Your task to perform on an android device: open app "Adobe Express: Graphic Design" Image 0: 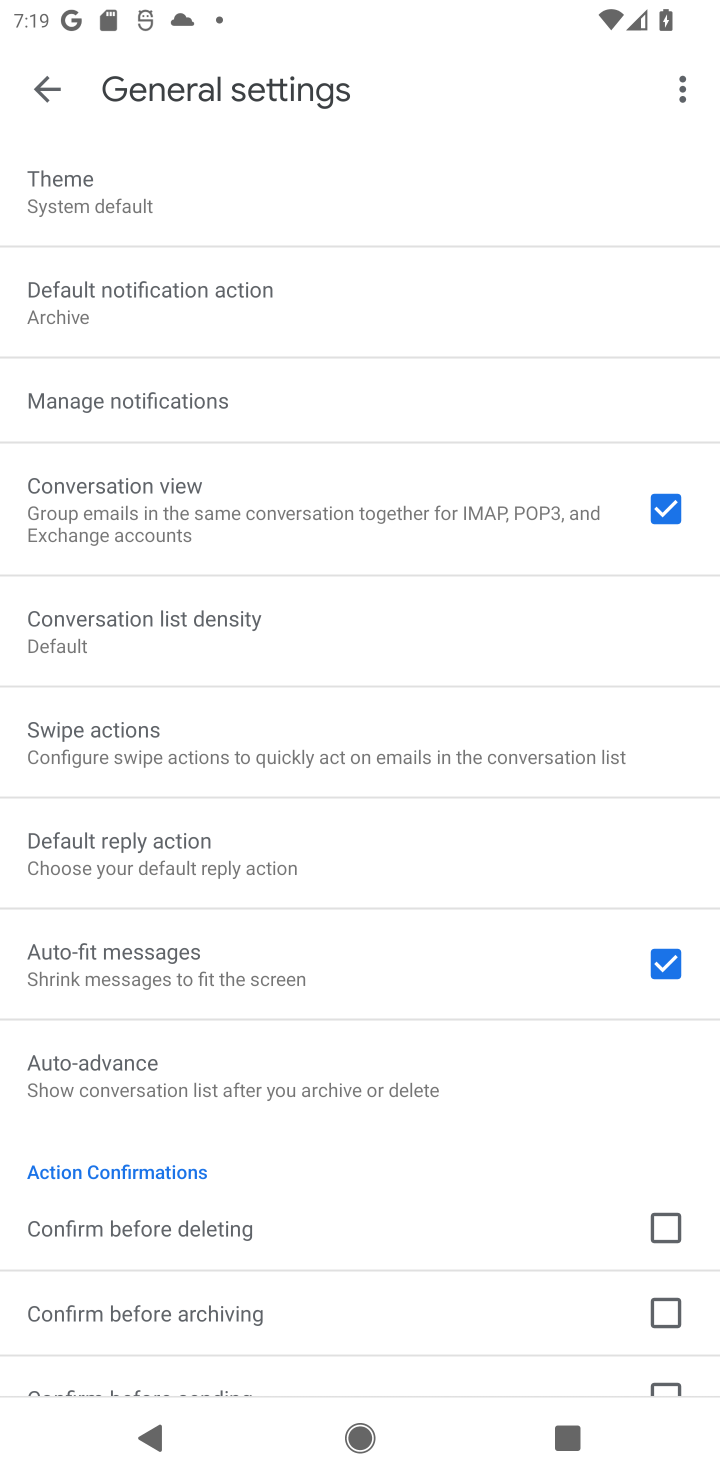
Step 0: press home button
Your task to perform on an android device: open app "Adobe Express: Graphic Design" Image 1: 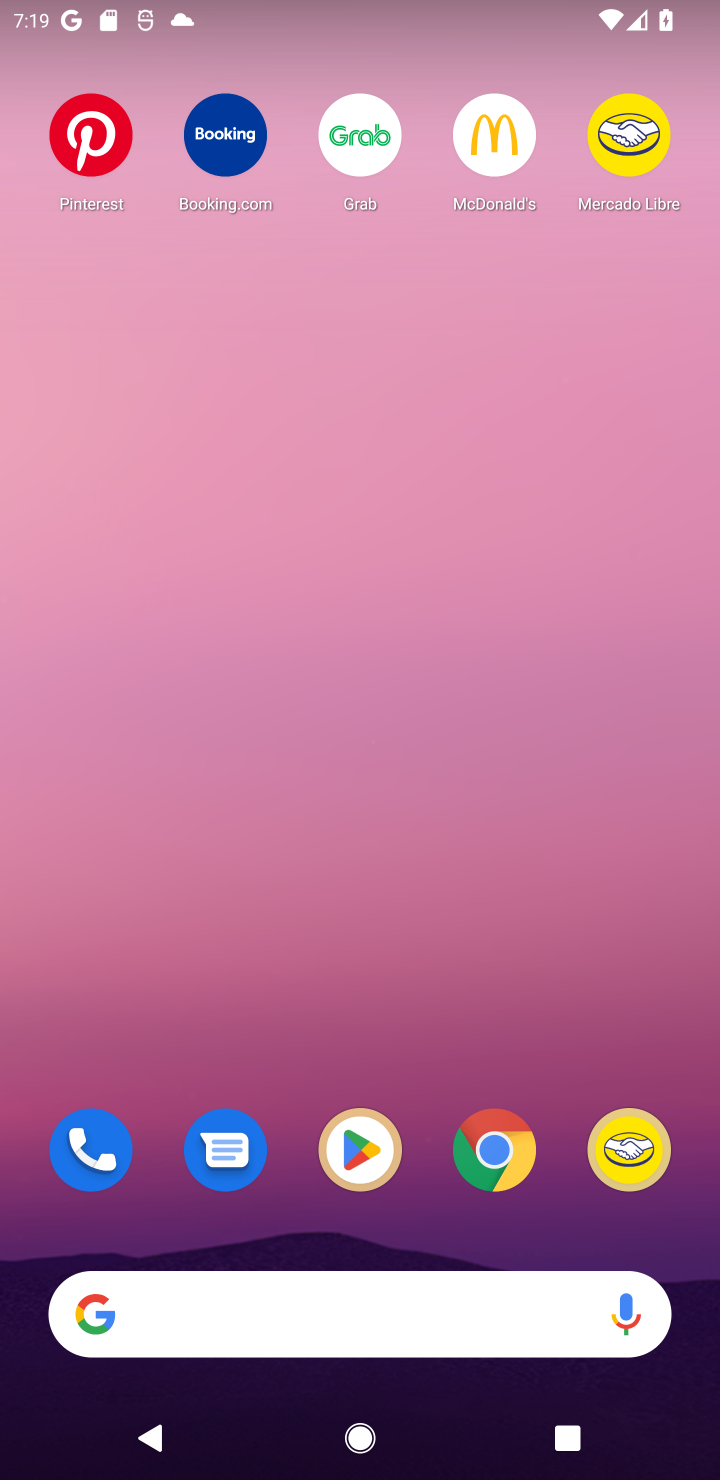
Step 1: click (369, 1154)
Your task to perform on an android device: open app "Adobe Express: Graphic Design" Image 2: 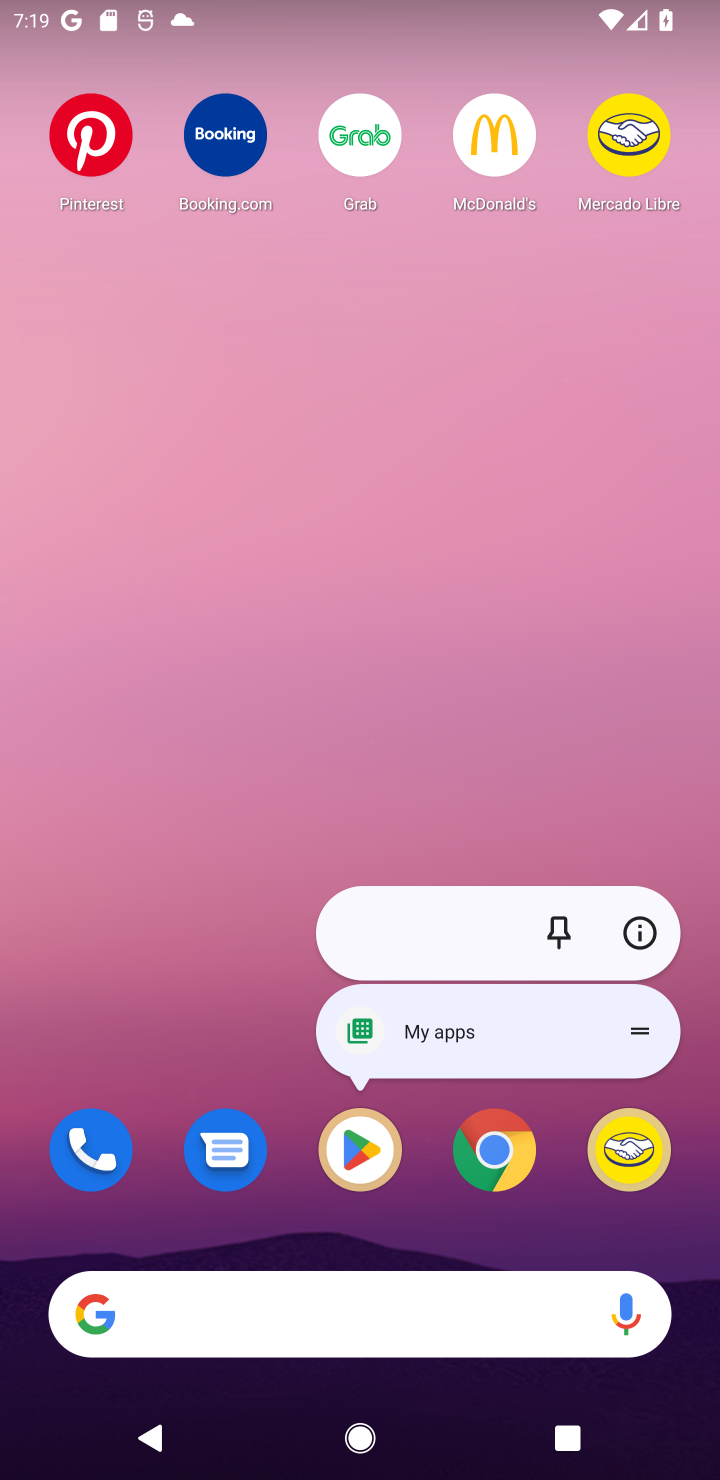
Step 2: click (371, 1154)
Your task to perform on an android device: open app "Adobe Express: Graphic Design" Image 3: 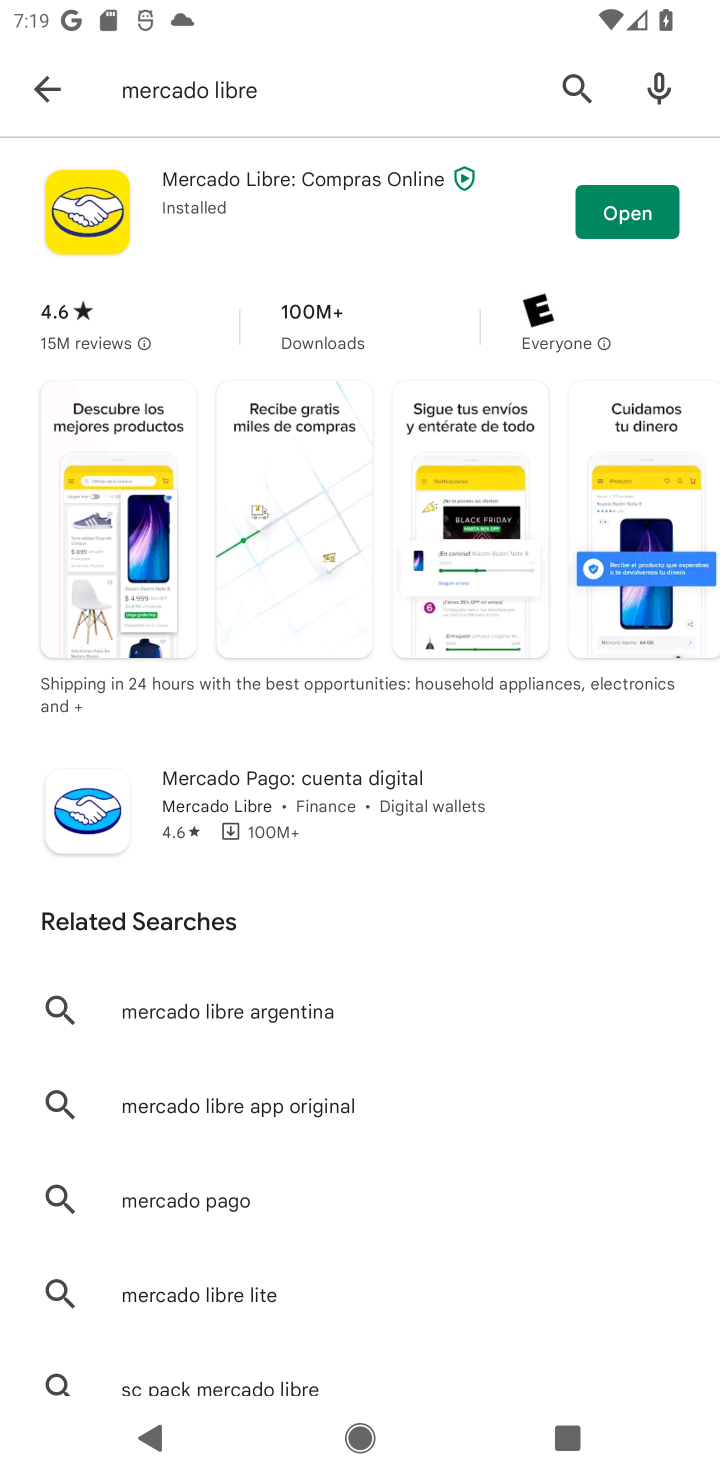
Step 3: click (76, 108)
Your task to perform on an android device: open app "Adobe Express: Graphic Design" Image 4: 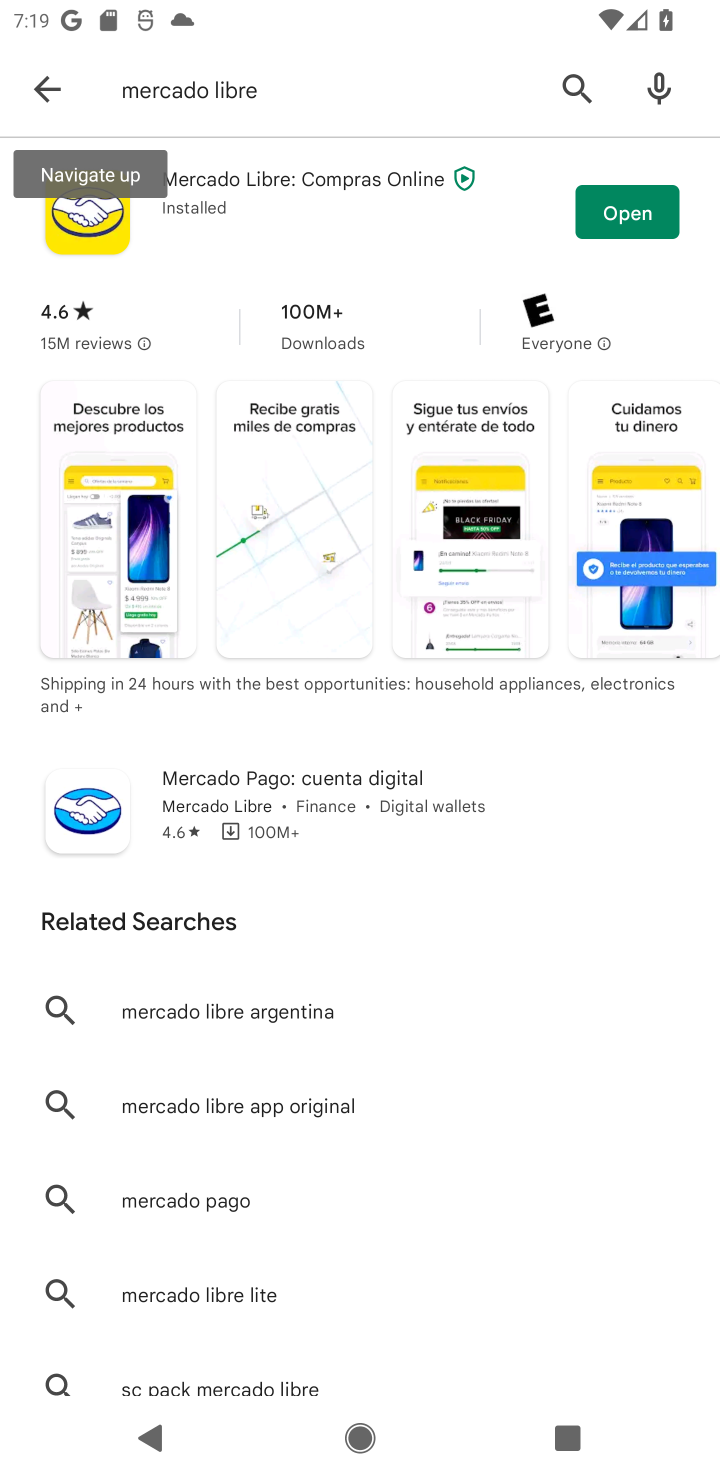
Step 4: click (71, 106)
Your task to perform on an android device: open app "Adobe Express: Graphic Design" Image 5: 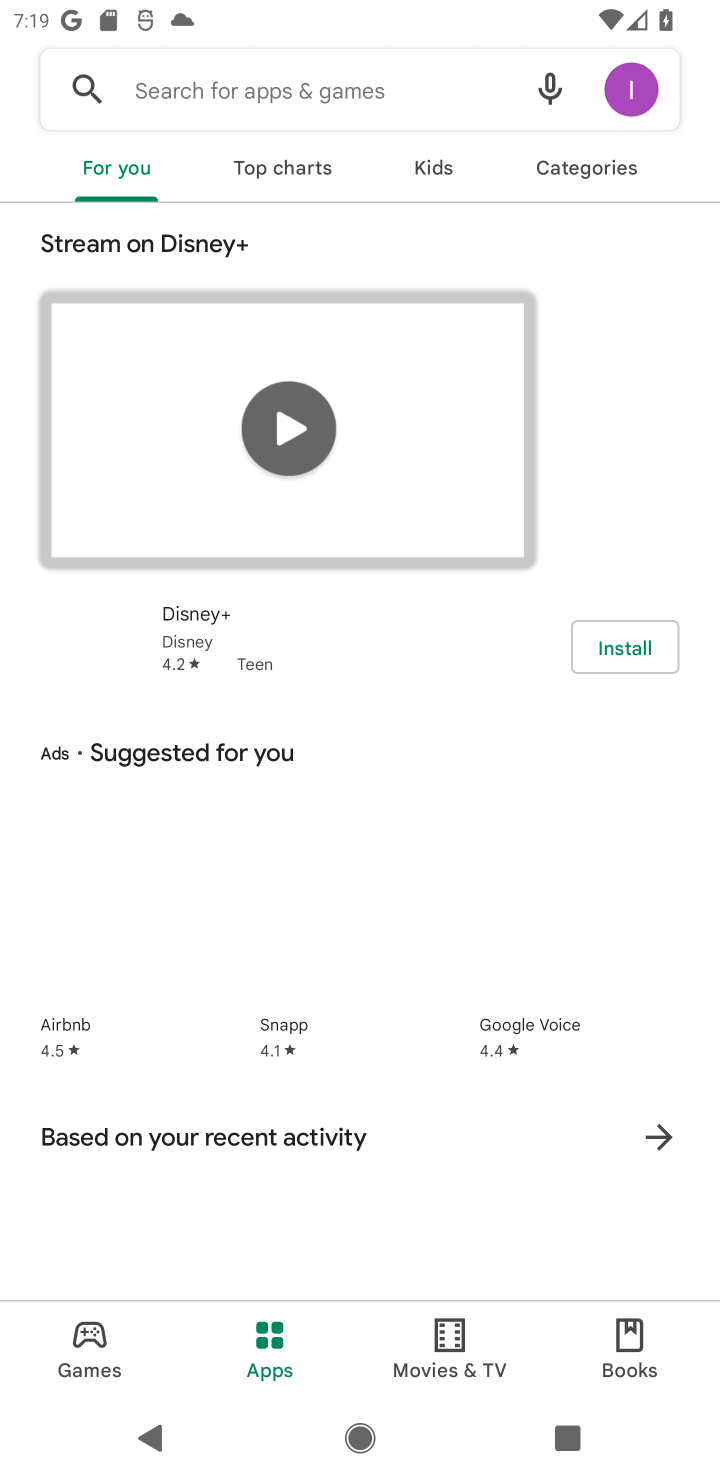
Step 5: click (69, 108)
Your task to perform on an android device: open app "Adobe Express: Graphic Design" Image 6: 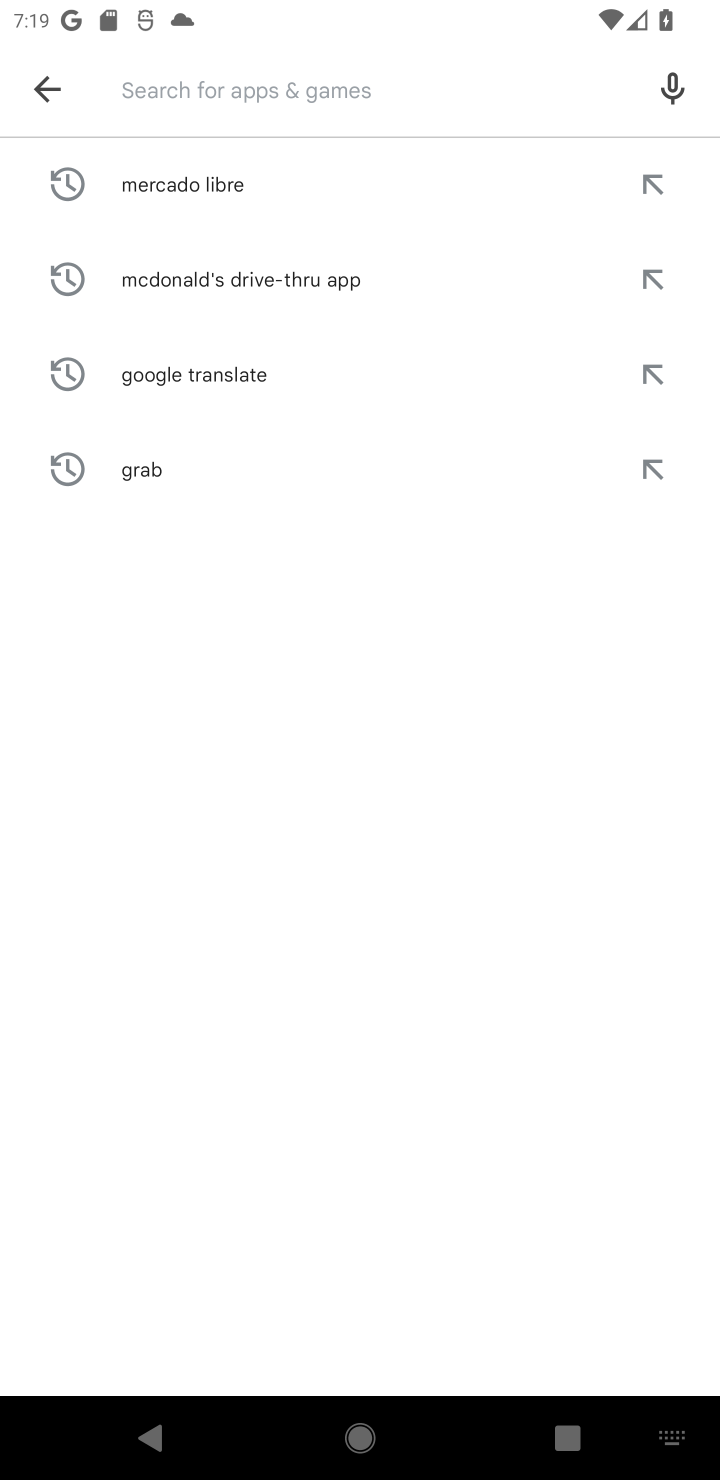
Step 6: click (114, 86)
Your task to perform on an android device: open app "Adobe Express: Graphic Design" Image 7: 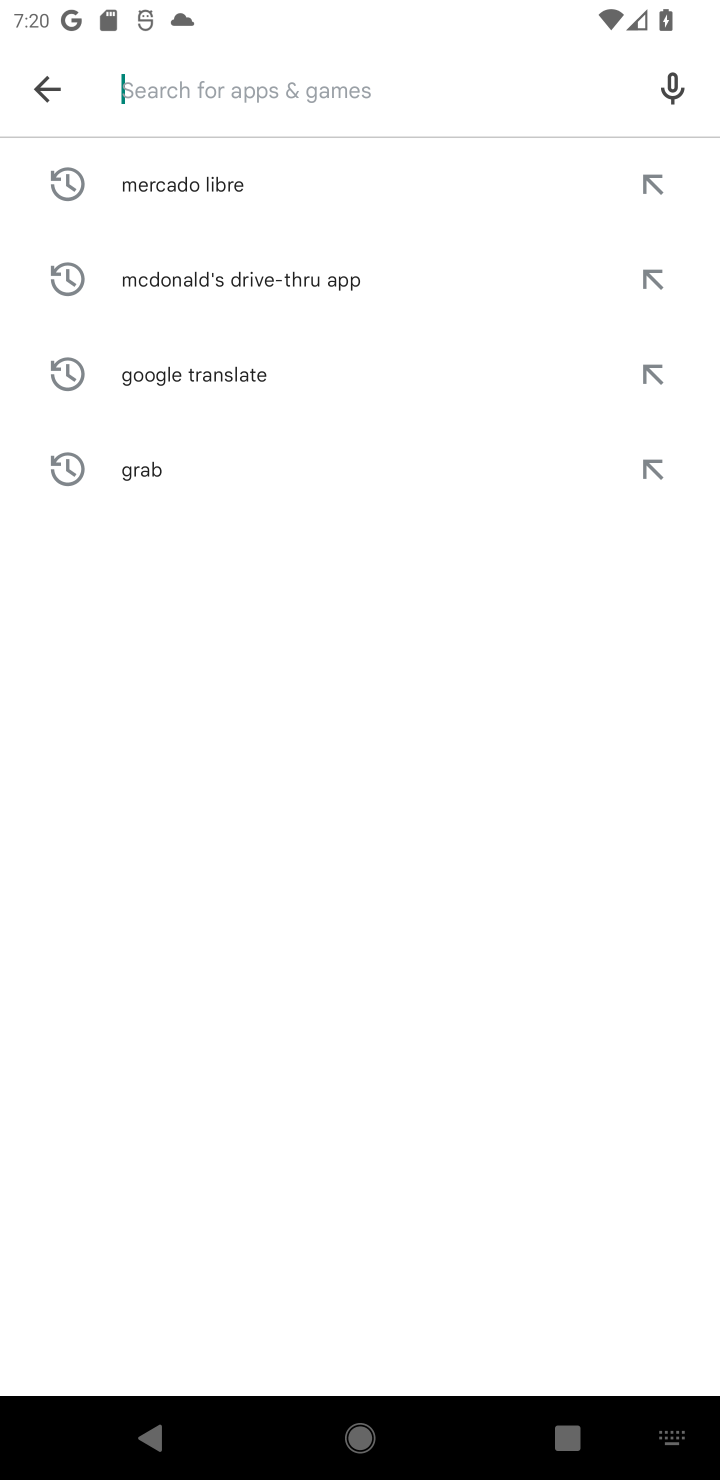
Step 7: type "Adobe Express: Graphic Desig"
Your task to perform on an android device: open app "Adobe Express: Graphic Design" Image 8: 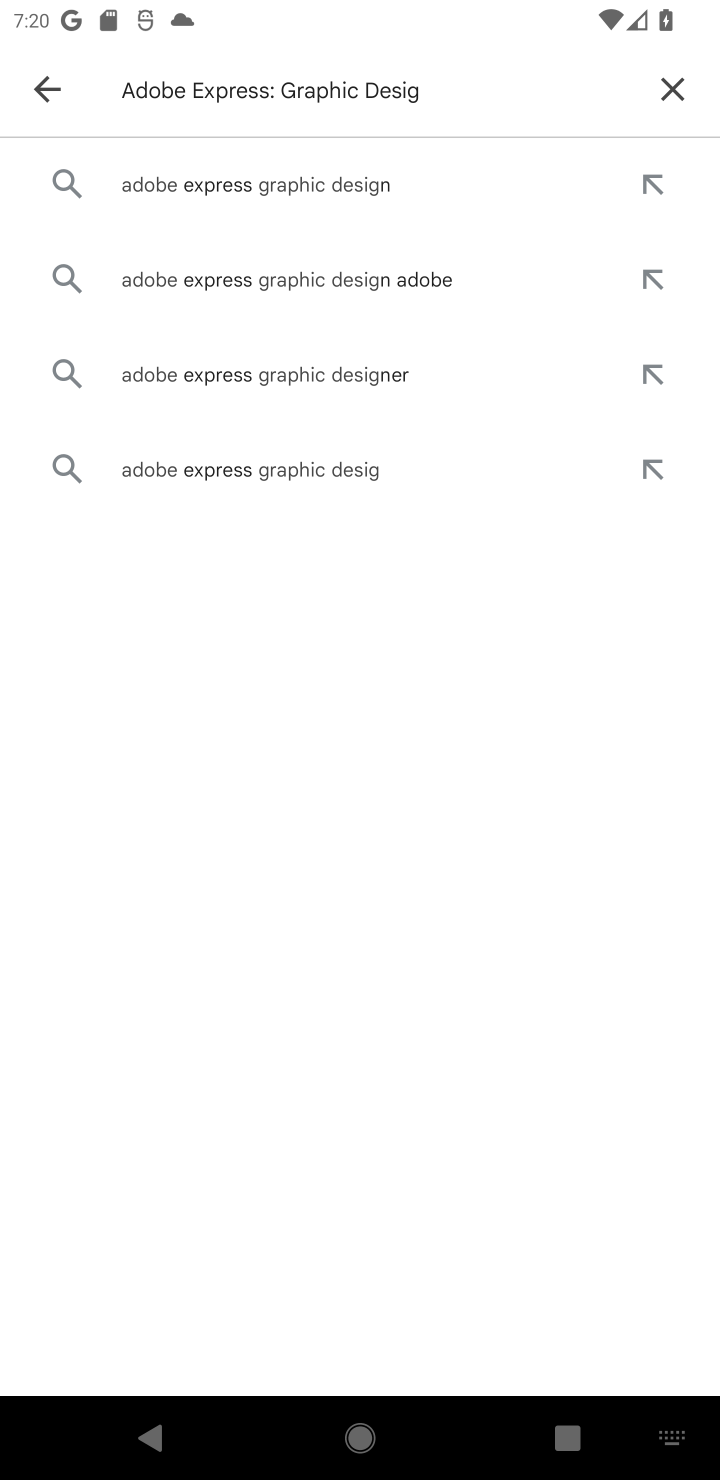
Step 8: click (159, 185)
Your task to perform on an android device: open app "Adobe Express: Graphic Design" Image 9: 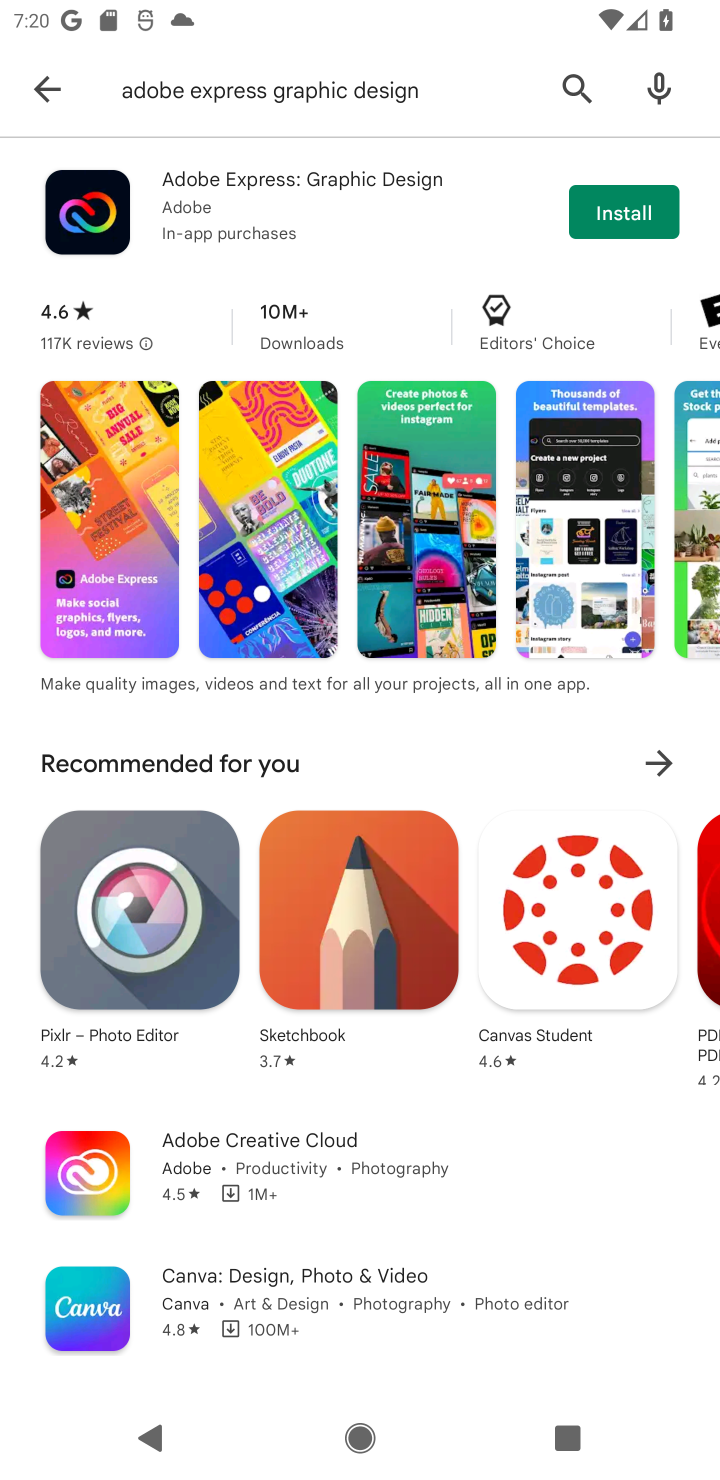
Step 9: task complete